Your task to perform on an android device: stop showing notifications on the lock screen Image 0: 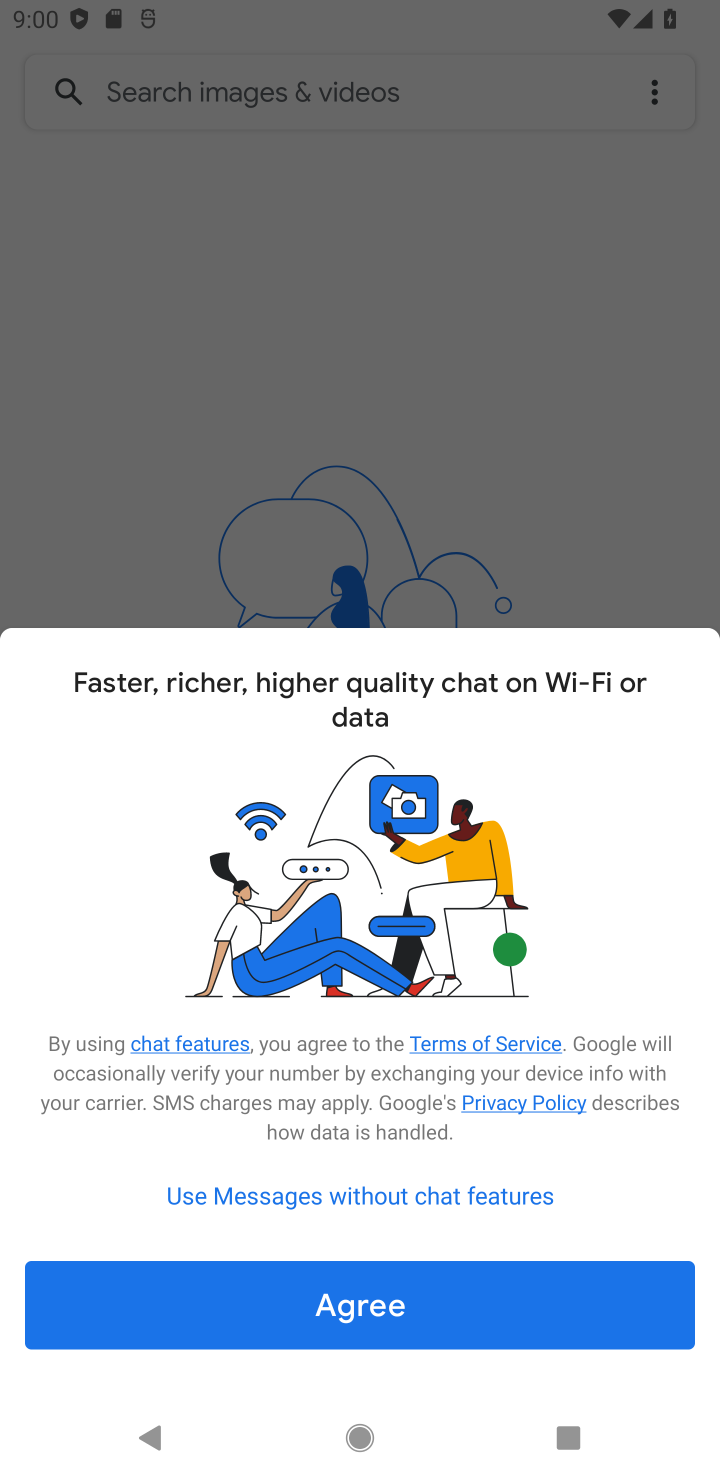
Step 0: press home button
Your task to perform on an android device: stop showing notifications on the lock screen Image 1: 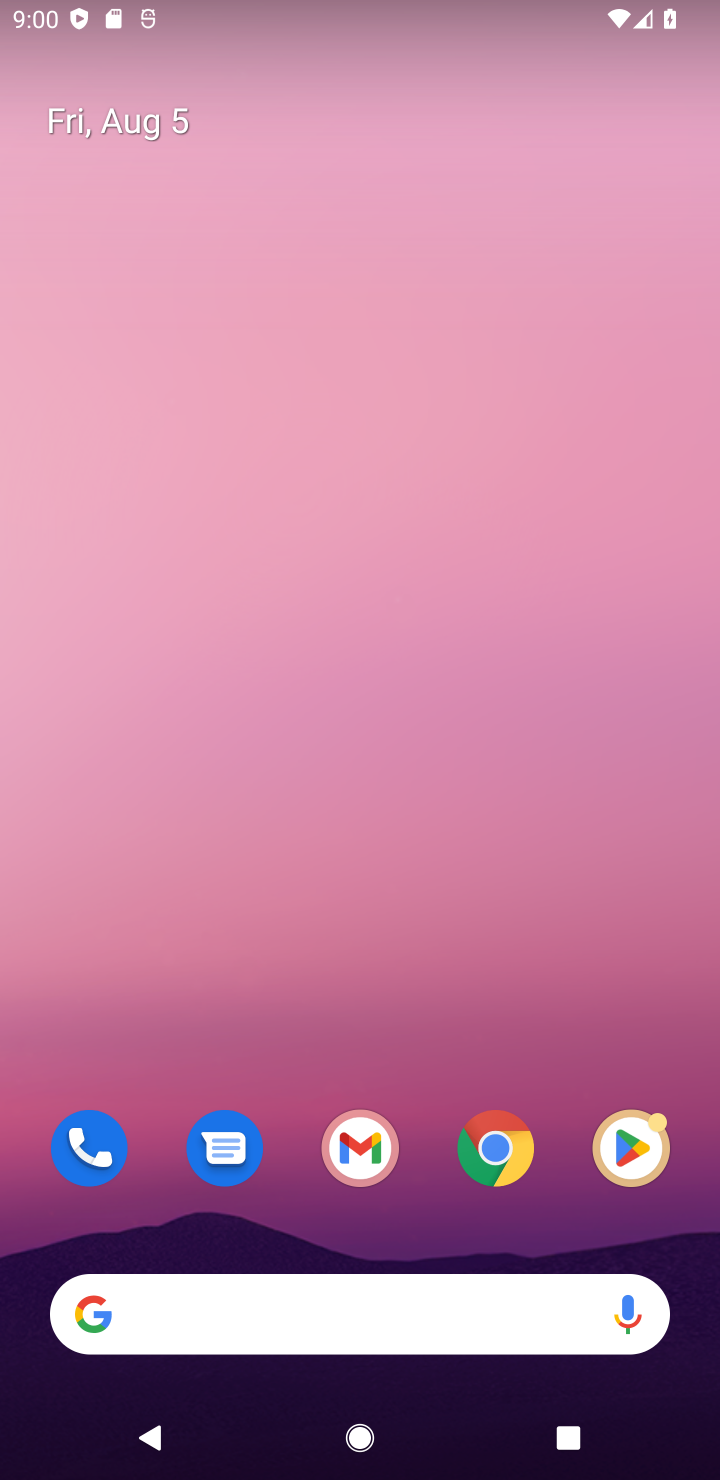
Step 1: drag from (418, 1236) to (373, 264)
Your task to perform on an android device: stop showing notifications on the lock screen Image 2: 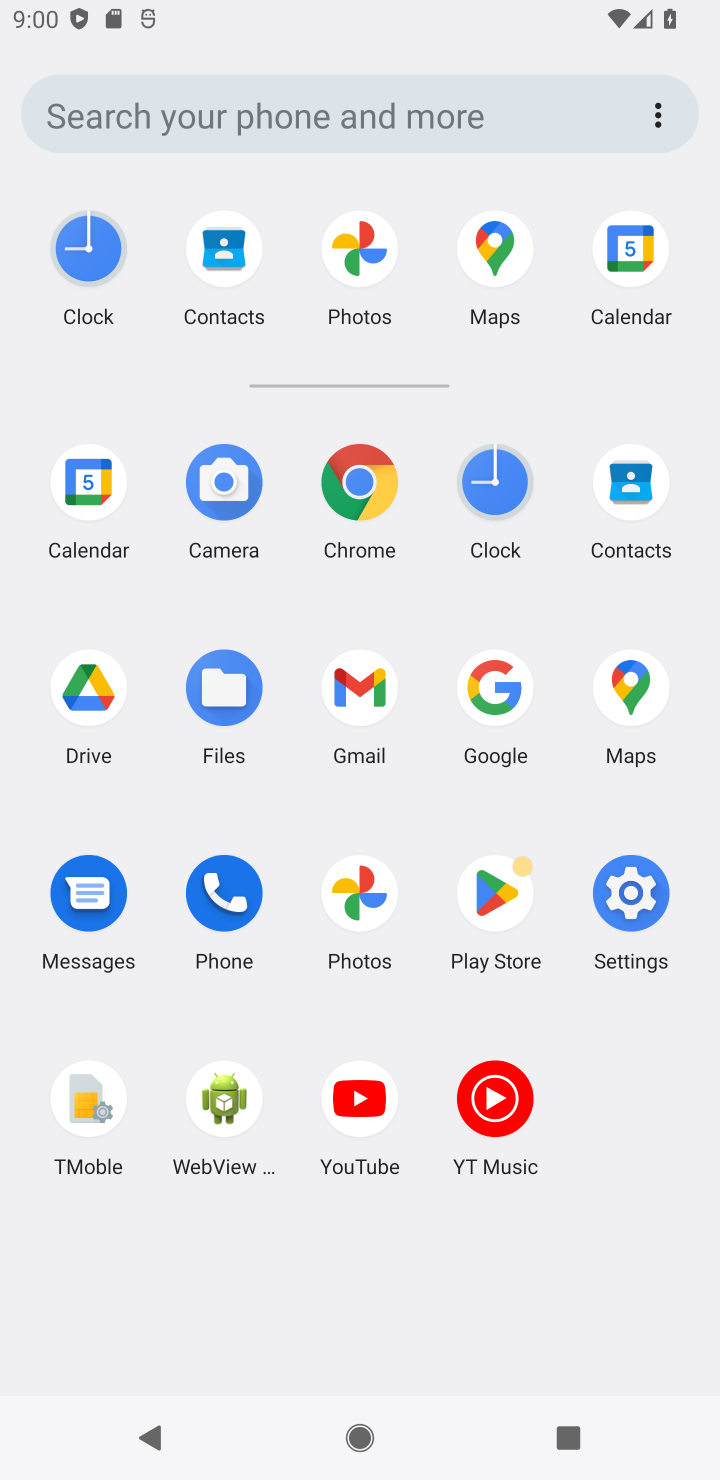
Step 2: click (608, 953)
Your task to perform on an android device: stop showing notifications on the lock screen Image 3: 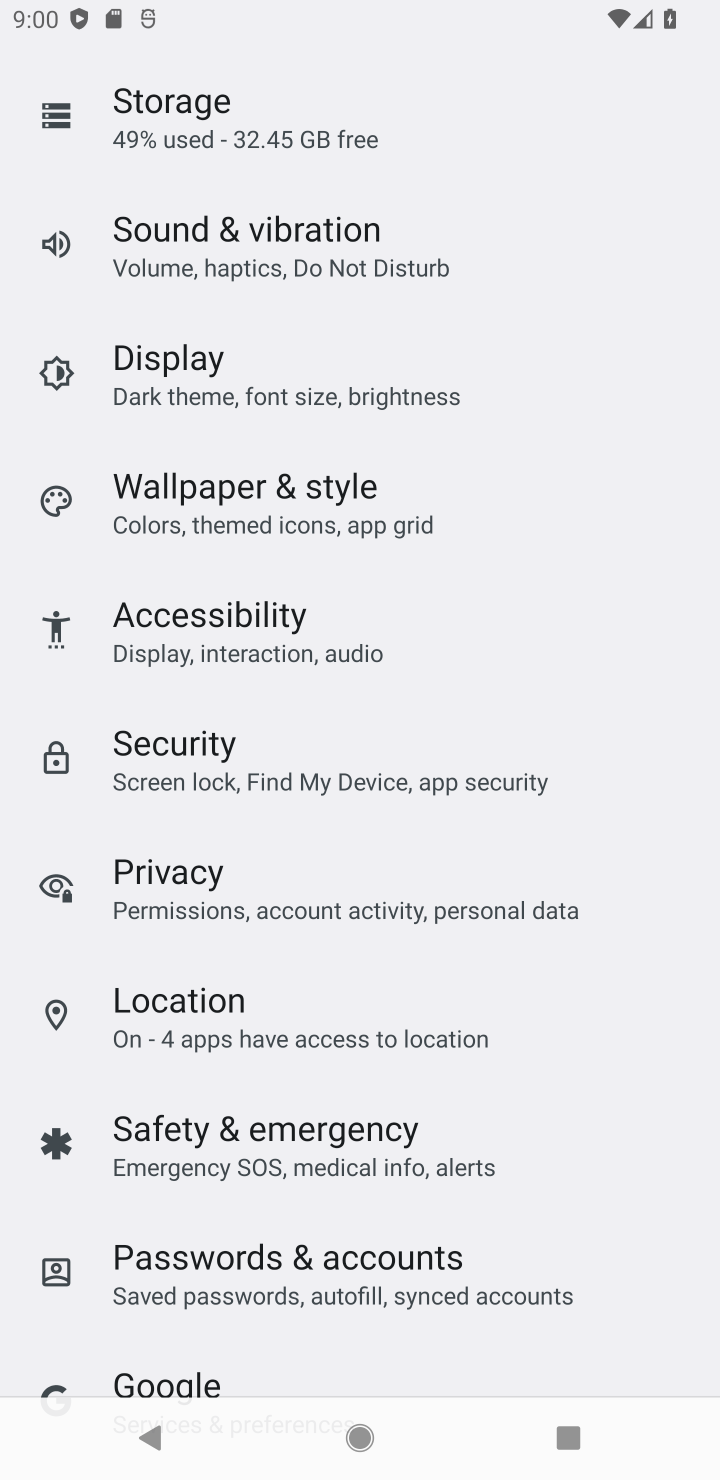
Step 3: task complete